Your task to perform on an android device: see sites visited before in the chrome app Image 0: 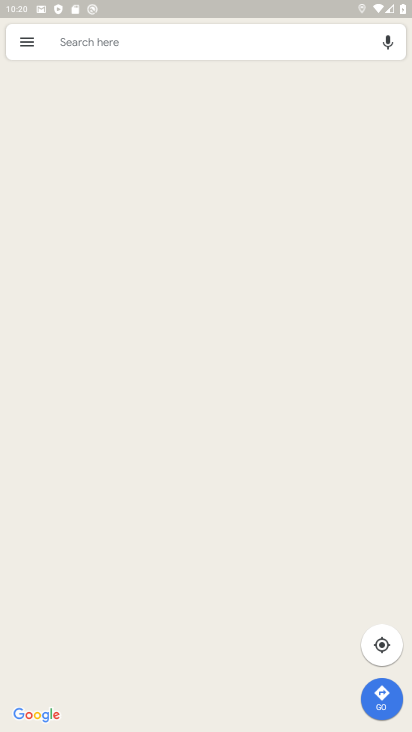
Step 0: press home button
Your task to perform on an android device: see sites visited before in the chrome app Image 1: 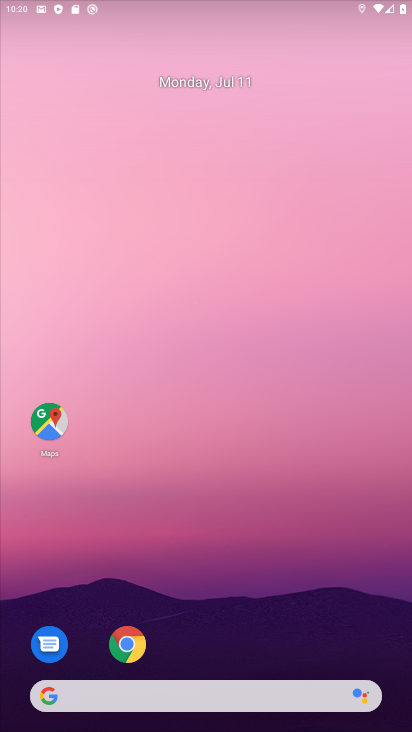
Step 1: drag from (216, 679) to (210, 217)
Your task to perform on an android device: see sites visited before in the chrome app Image 2: 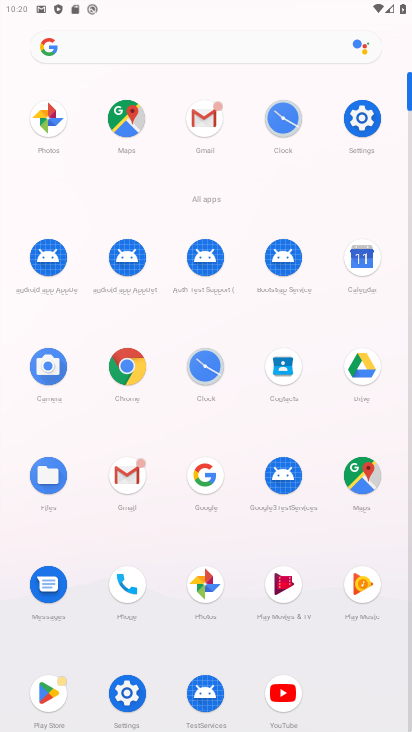
Step 2: click (127, 368)
Your task to perform on an android device: see sites visited before in the chrome app Image 3: 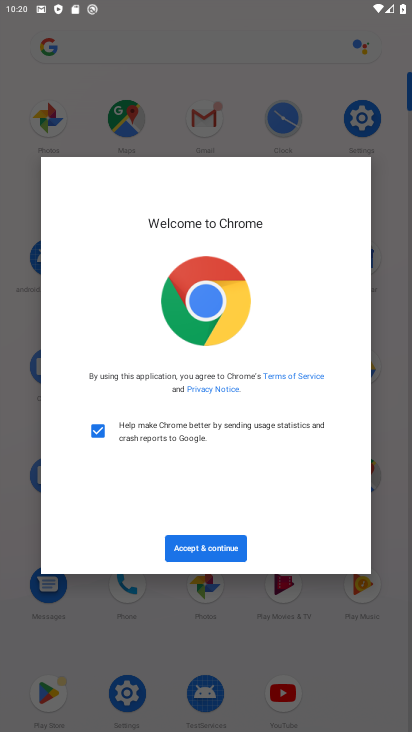
Step 3: click (201, 554)
Your task to perform on an android device: see sites visited before in the chrome app Image 4: 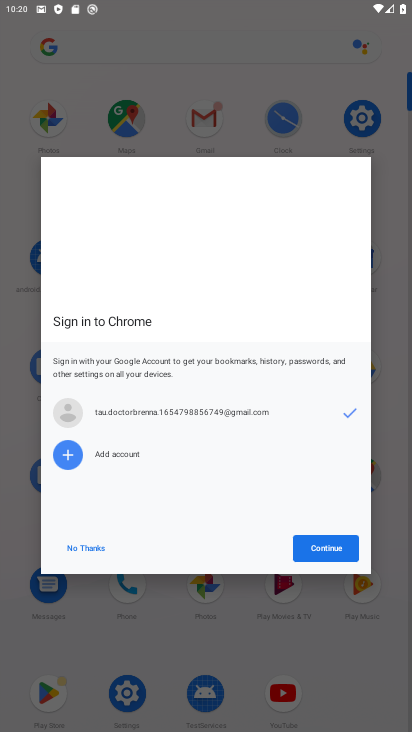
Step 4: click (342, 544)
Your task to perform on an android device: see sites visited before in the chrome app Image 5: 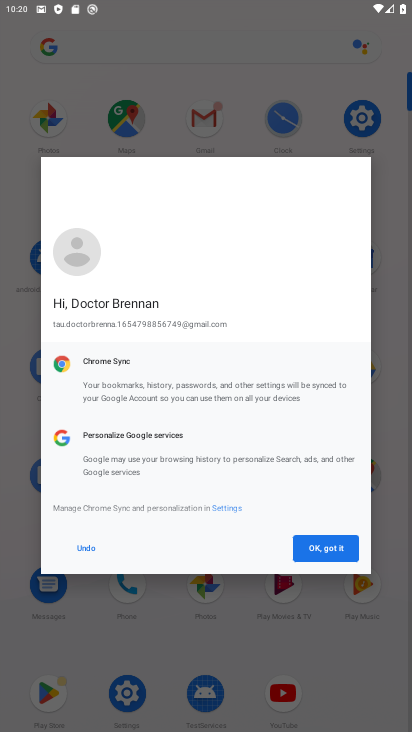
Step 5: click (340, 548)
Your task to perform on an android device: see sites visited before in the chrome app Image 6: 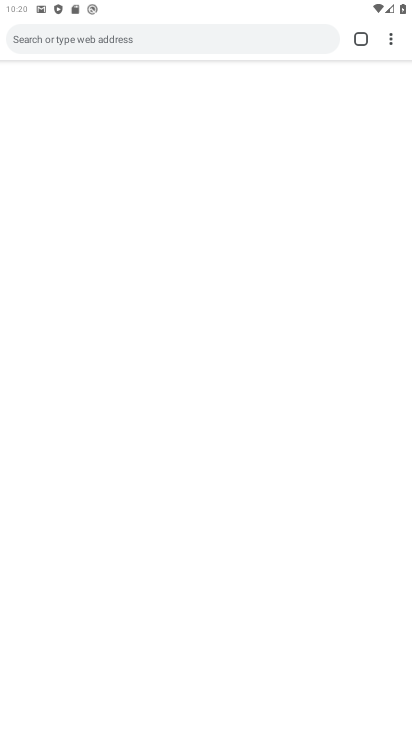
Step 6: click (394, 36)
Your task to perform on an android device: see sites visited before in the chrome app Image 7: 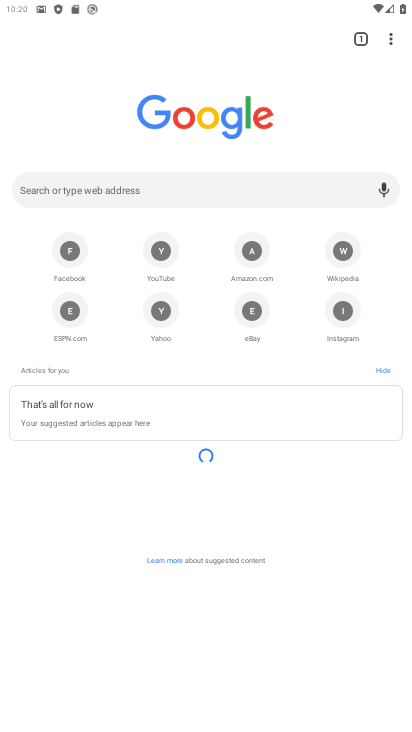
Step 7: click (391, 39)
Your task to perform on an android device: see sites visited before in the chrome app Image 8: 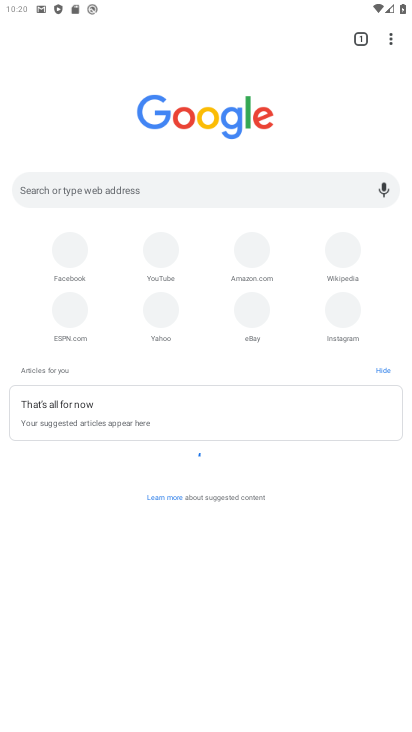
Step 8: click (393, 35)
Your task to perform on an android device: see sites visited before in the chrome app Image 9: 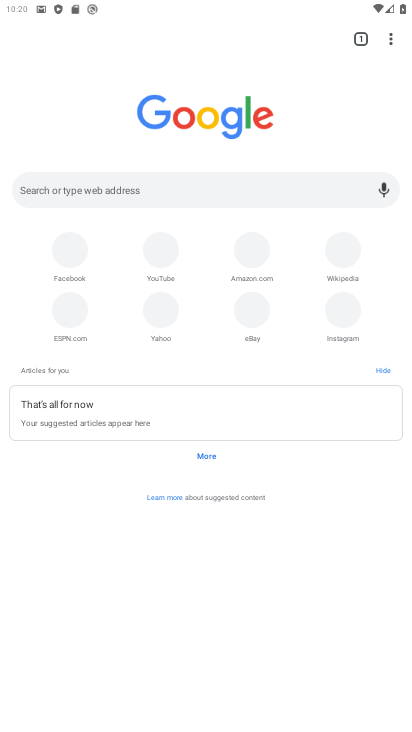
Step 9: click (393, 35)
Your task to perform on an android device: see sites visited before in the chrome app Image 10: 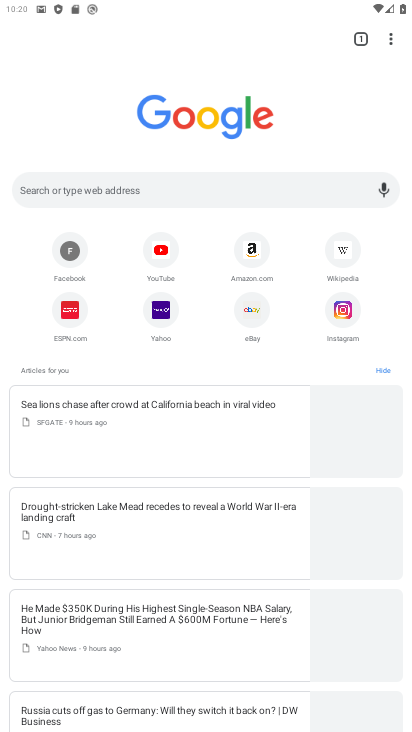
Step 10: click (393, 35)
Your task to perform on an android device: see sites visited before in the chrome app Image 11: 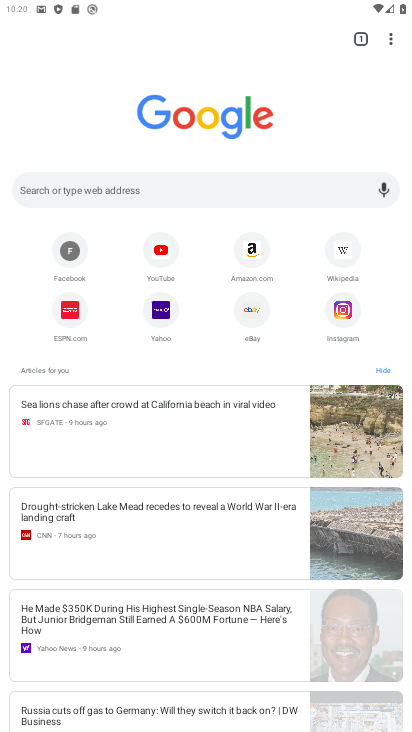
Step 11: click (393, 35)
Your task to perform on an android device: see sites visited before in the chrome app Image 12: 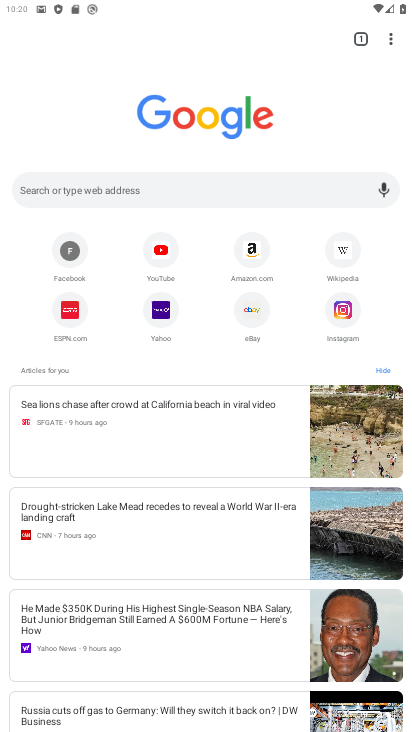
Step 12: click (392, 37)
Your task to perform on an android device: see sites visited before in the chrome app Image 13: 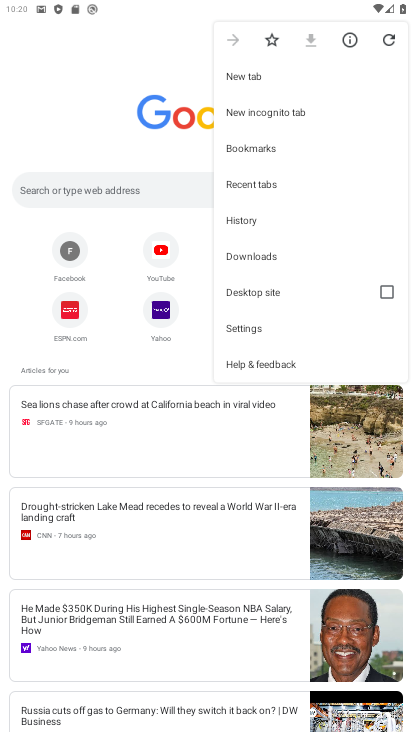
Step 13: click (248, 218)
Your task to perform on an android device: see sites visited before in the chrome app Image 14: 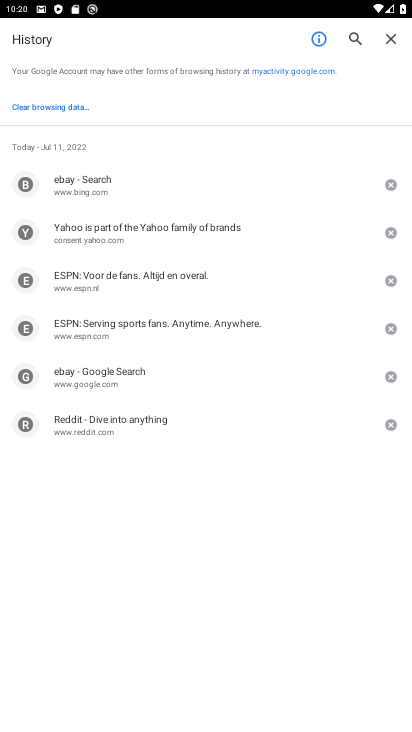
Step 14: task complete